Your task to perform on an android device: Show me recent news Image 0: 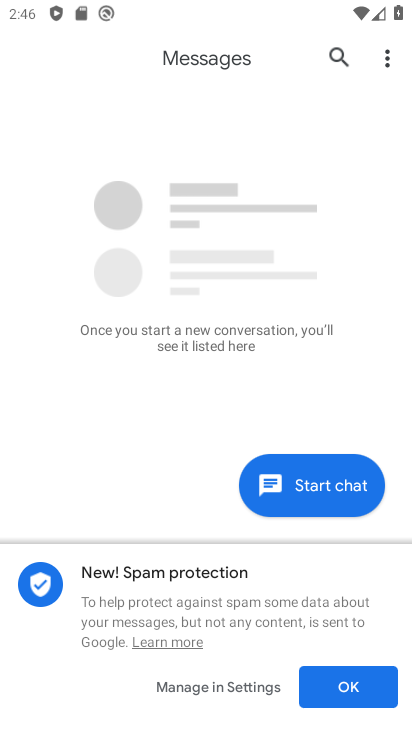
Step 0: press home button
Your task to perform on an android device: Show me recent news Image 1: 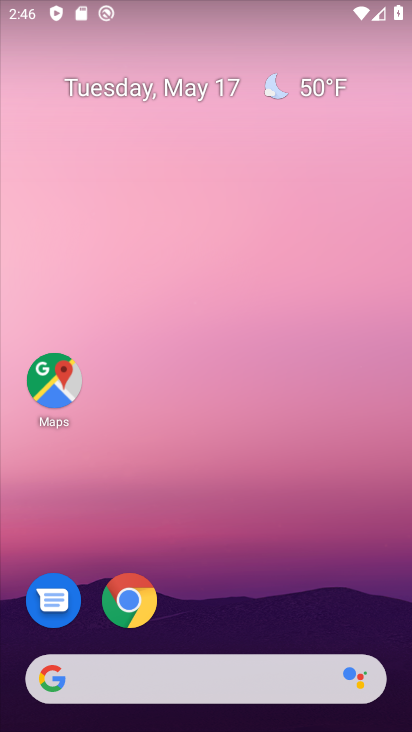
Step 1: drag from (269, 620) to (278, 160)
Your task to perform on an android device: Show me recent news Image 2: 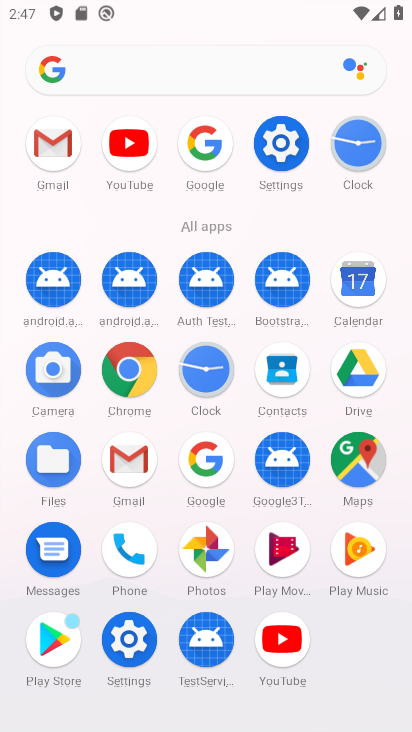
Step 2: click (213, 462)
Your task to perform on an android device: Show me recent news Image 3: 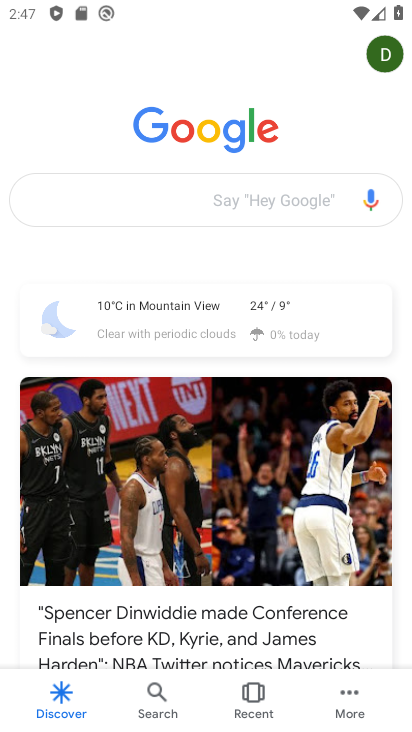
Step 3: click (182, 189)
Your task to perform on an android device: Show me recent news Image 4: 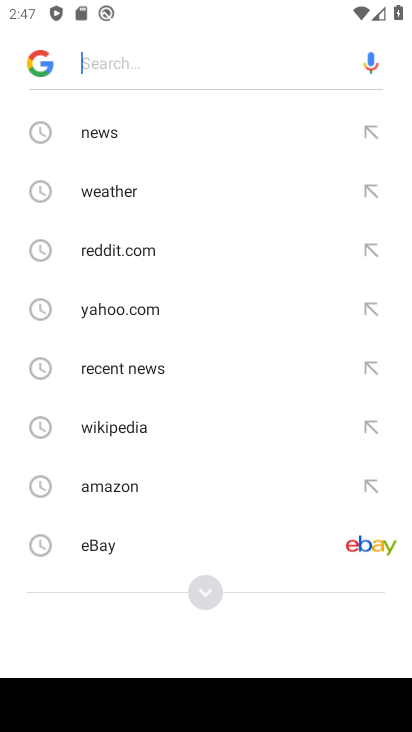
Step 4: click (136, 378)
Your task to perform on an android device: Show me recent news Image 5: 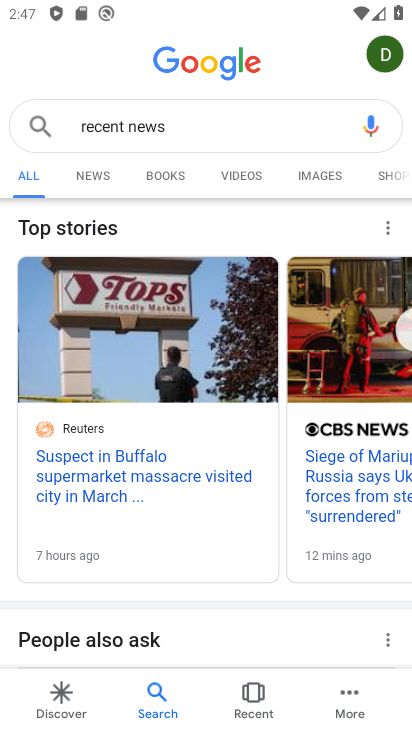
Step 5: task complete